Your task to perform on an android device: What is the news today? Image 0: 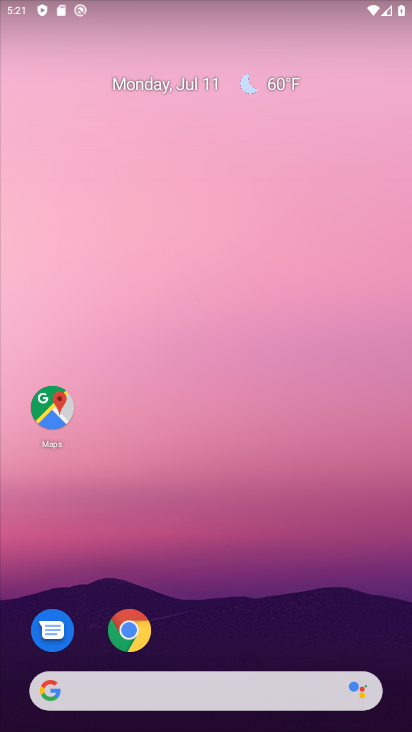
Step 0: press home button
Your task to perform on an android device: What is the news today? Image 1: 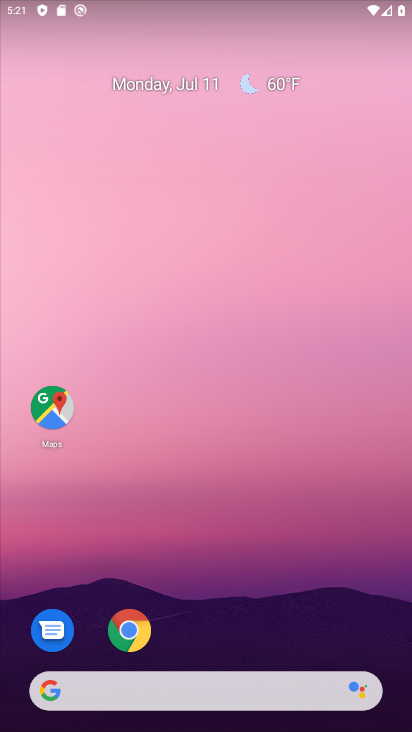
Step 1: drag from (204, 618) to (131, 70)
Your task to perform on an android device: What is the news today? Image 2: 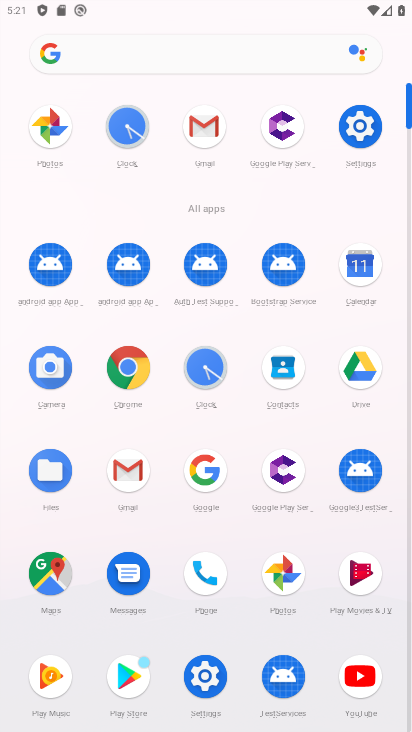
Step 2: click (202, 464)
Your task to perform on an android device: What is the news today? Image 3: 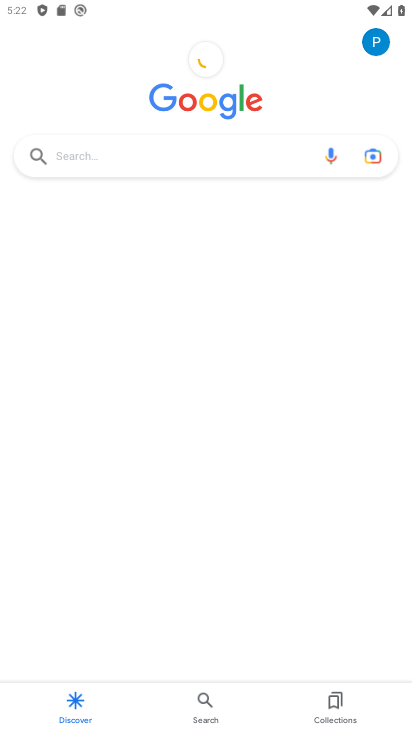
Step 3: click (147, 159)
Your task to perform on an android device: What is the news today? Image 4: 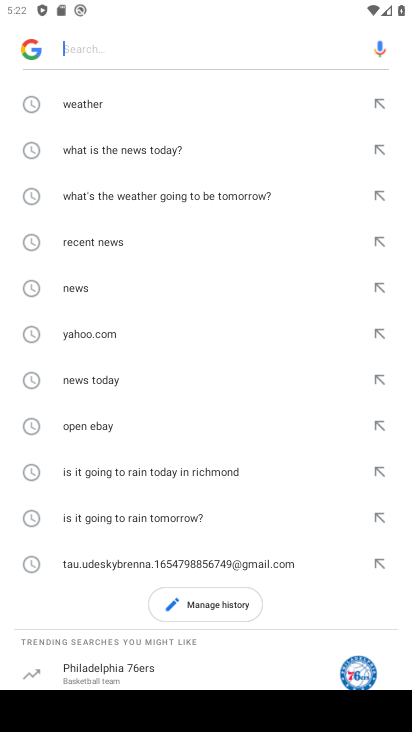
Step 4: type "news today"
Your task to perform on an android device: What is the news today? Image 5: 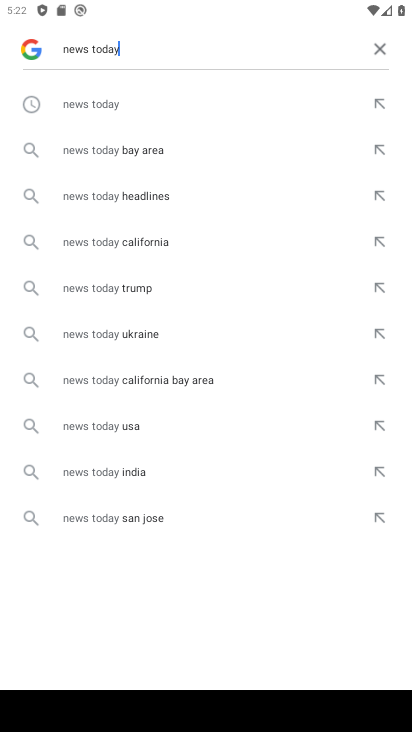
Step 5: click (85, 108)
Your task to perform on an android device: What is the news today? Image 6: 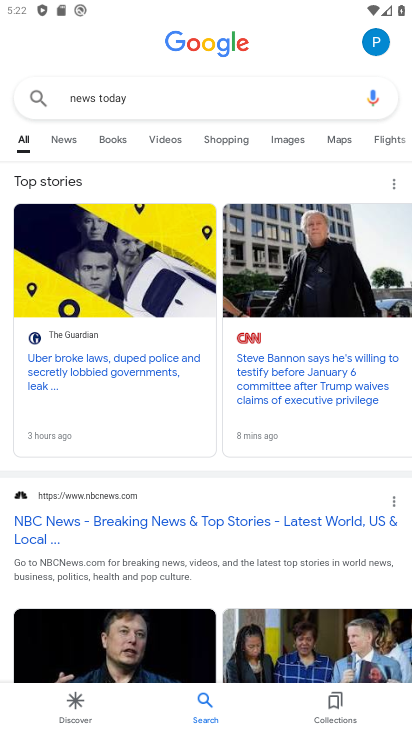
Step 6: task complete